Your task to perform on an android device: Open maps Image 0: 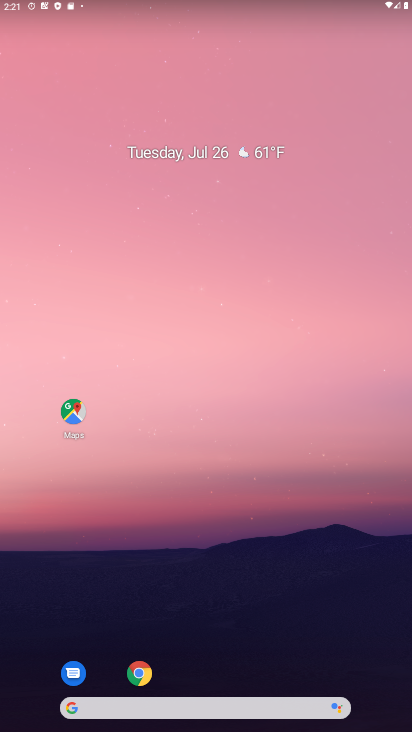
Step 0: drag from (231, 576) to (250, 476)
Your task to perform on an android device: Open maps Image 1: 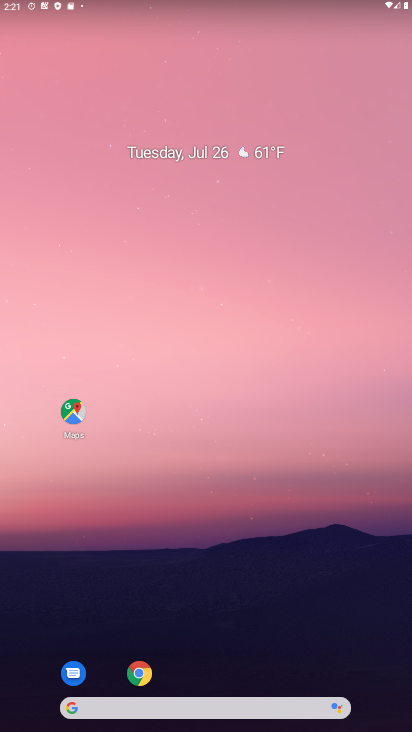
Step 1: drag from (176, 667) to (195, 334)
Your task to perform on an android device: Open maps Image 2: 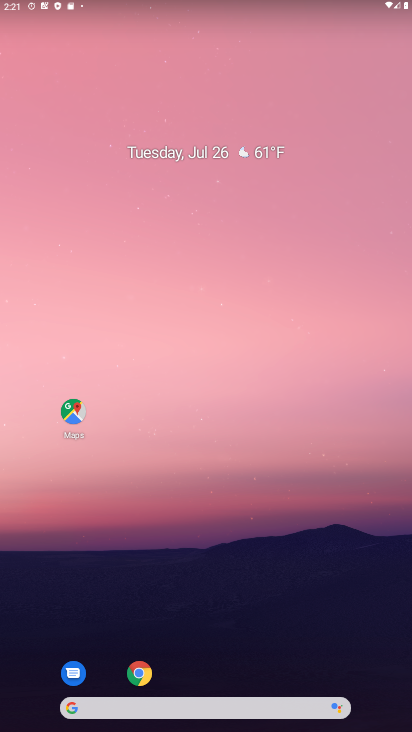
Step 2: click (66, 402)
Your task to perform on an android device: Open maps Image 3: 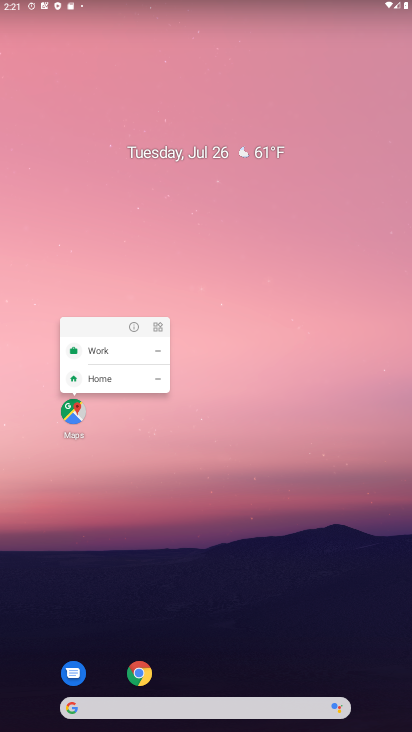
Step 3: drag from (202, 526) to (243, 176)
Your task to perform on an android device: Open maps Image 4: 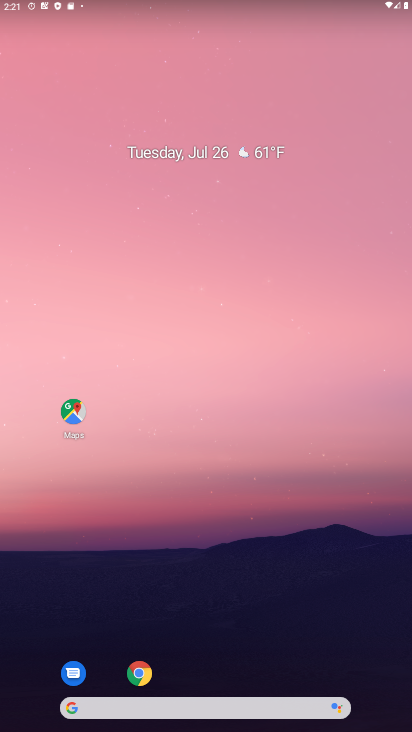
Step 4: drag from (194, 581) to (281, 180)
Your task to perform on an android device: Open maps Image 5: 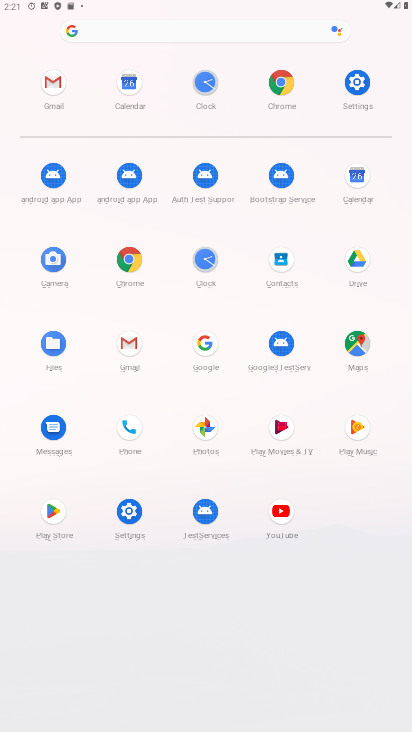
Step 5: click (349, 346)
Your task to perform on an android device: Open maps Image 6: 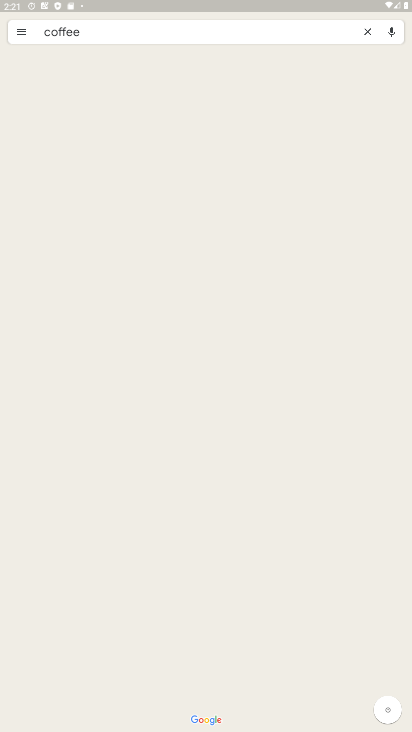
Step 6: task complete